Your task to perform on an android device: delete the emails in spam in the gmail app Image 0: 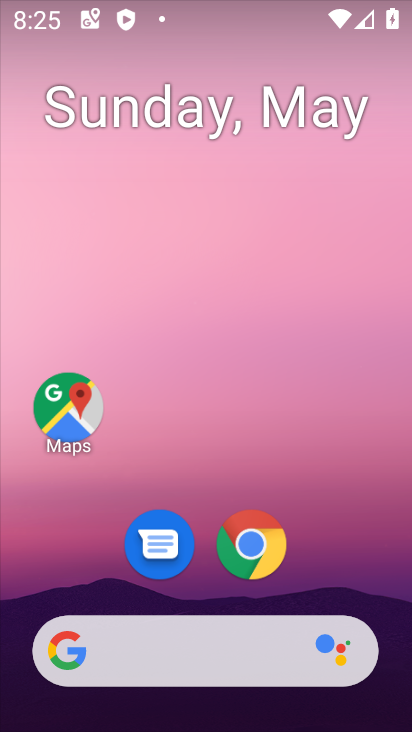
Step 0: drag from (337, 483) to (293, 41)
Your task to perform on an android device: delete the emails in spam in the gmail app Image 1: 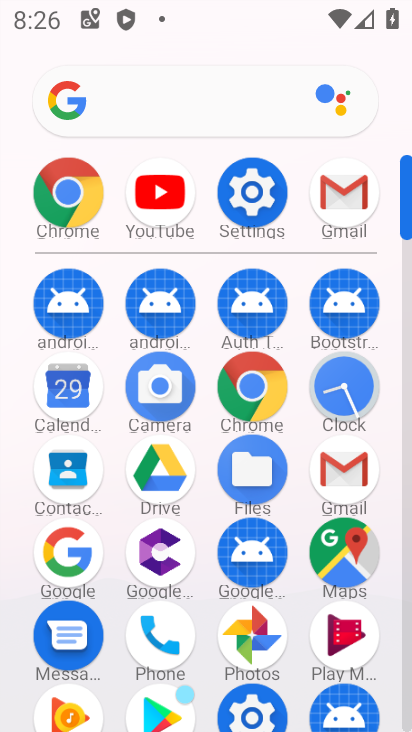
Step 1: drag from (1, 585) to (17, 237)
Your task to perform on an android device: delete the emails in spam in the gmail app Image 2: 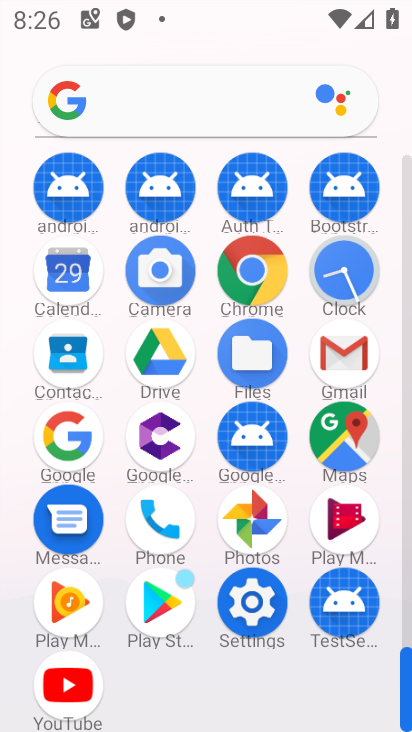
Step 2: click (345, 347)
Your task to perform on an android device: delete the emails in spam in the gmail app Image 3: 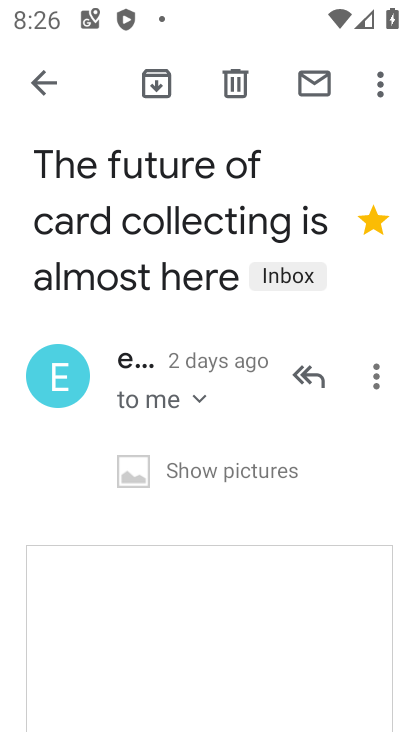
Step 3: click (222, 74)
Your task to perform on an android device: delete the emails in spam in the gmail app Image 4: 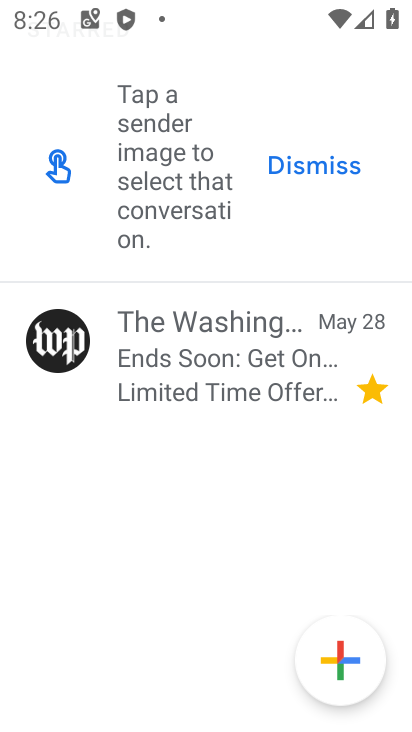
Step 4: task complete